Your task to perform on an android device: Go to Google Image 0: 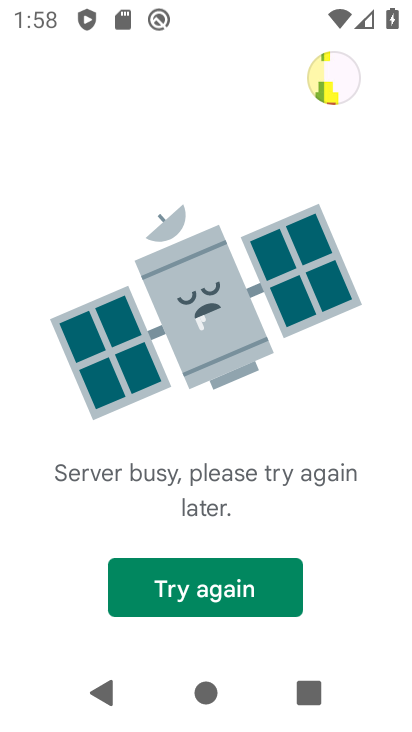
Step 0: press home button
Your task to perform on an android device: Go to Google Image 1: 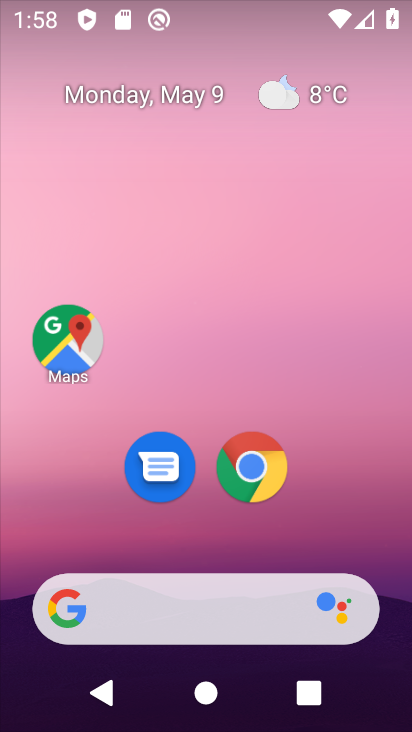
Step 1: drag from (316, 555) to (314, 222)
Your task to perform on an android device: Go to Google Image 2: 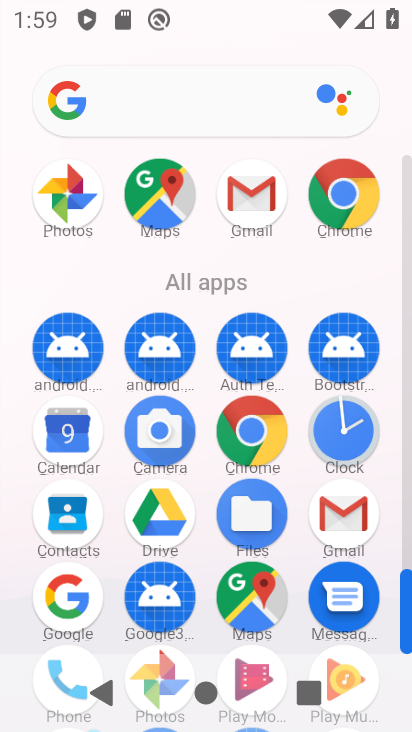
Step 2: click (82, 598)
Your task to perform on an android device: Go to Google Image 3: 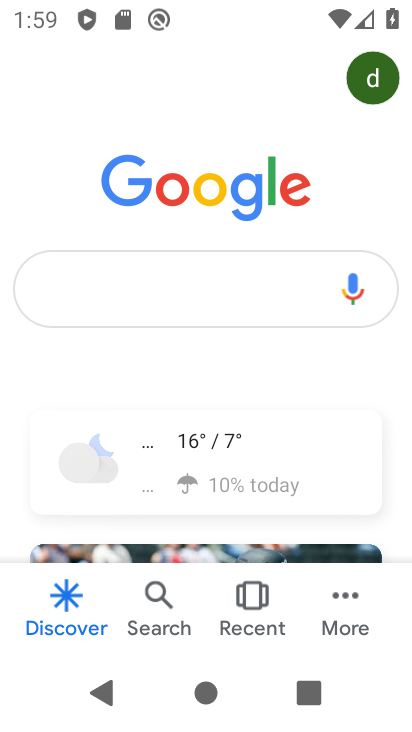
Step 3: task complete